Your task to perform on an android device: toggle notification dots Image 0: 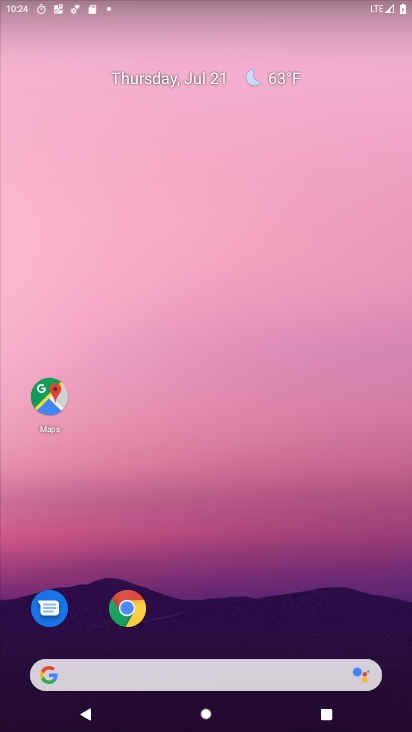
Step 0: drag from (203, 666) to (266, 80)
Your task to perform on an android device: toggle notification dots Image 1: 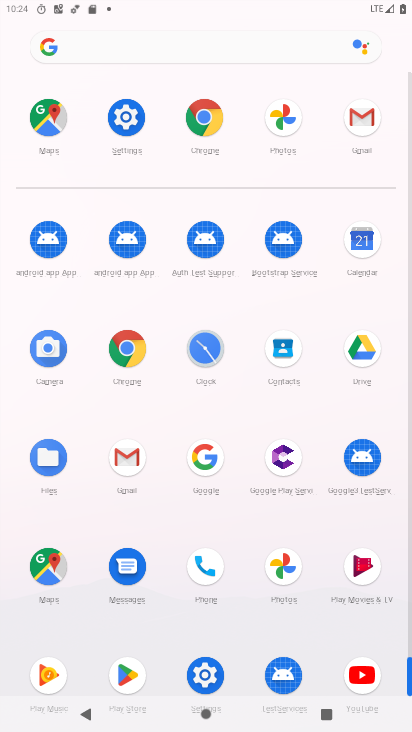
Step 1: click (130, 144)
Your task to perform on an android device: toggle notification dots Image 2: 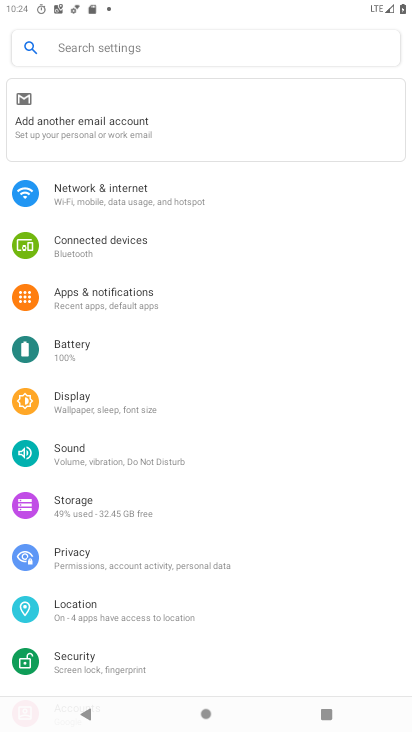
Step 2: click (85, 305)
Your task to perform on an android device: toggle notification dots Image 3: 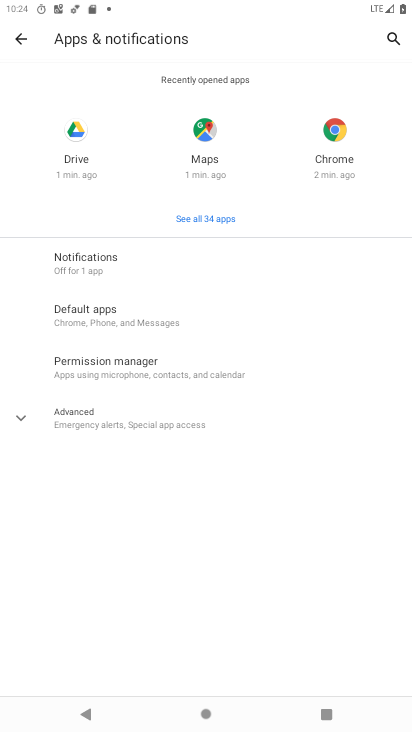
Step 3: click (148, 271)
Your task to perform on an android device: toggle notification dots Image 4: 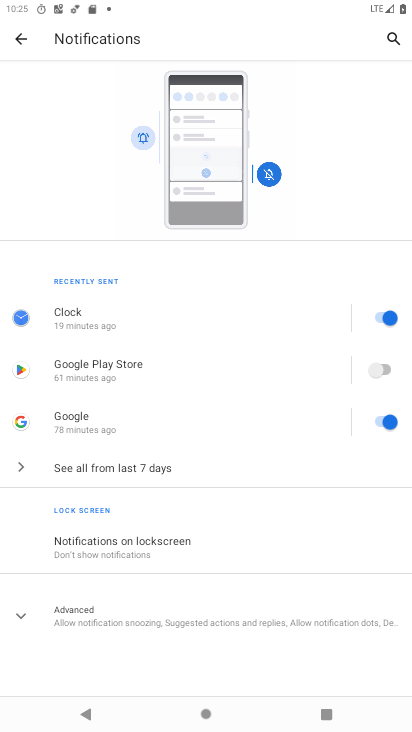
Step 4: drag from (206, 549) to (312, 166)
Your task to perform on an android device: toggle notification dots Image 5: 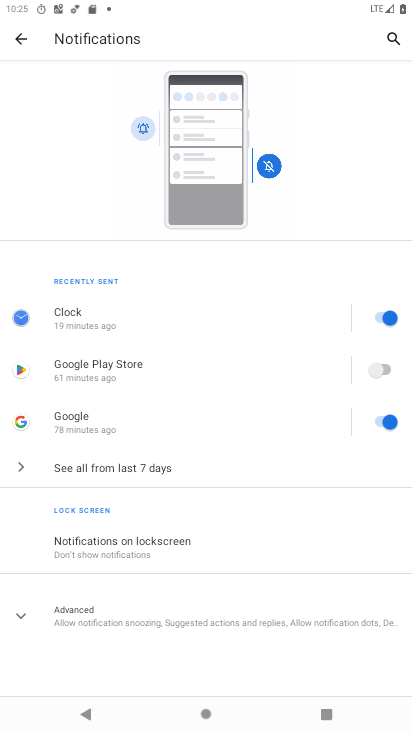
Step 5: click (133, 611)
Your task to perform on an android device: toggle notification dots Image 6: 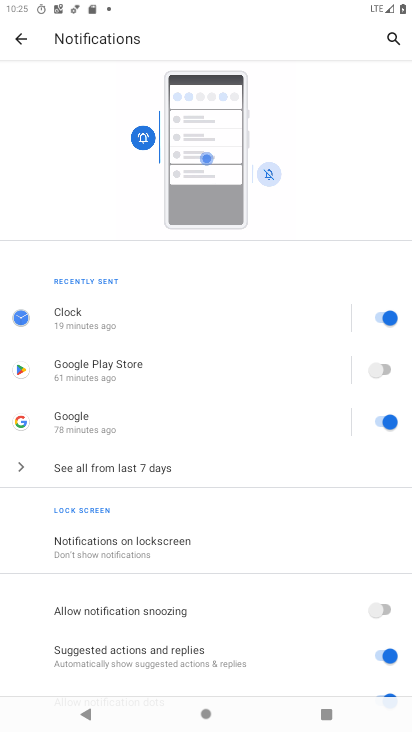
Step 6: drag from (222, 331) to (270, 45)
Your task to perform on an android device: toggle notification dots Image 7: 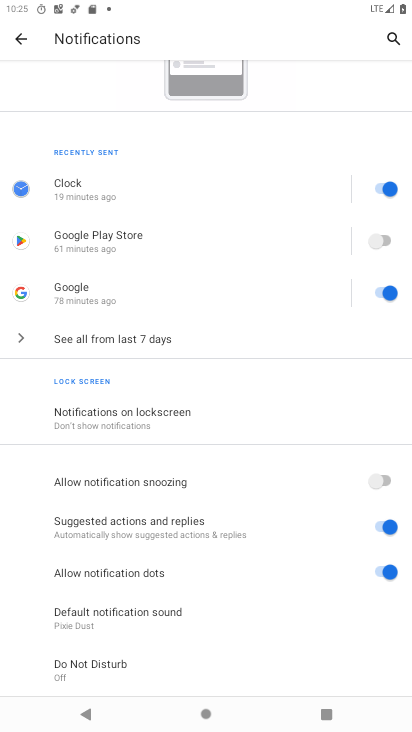
Step 7: drag from (216, 578) to (222, 142)
Your task to perform on an android device: toggle notification dots Image 8: 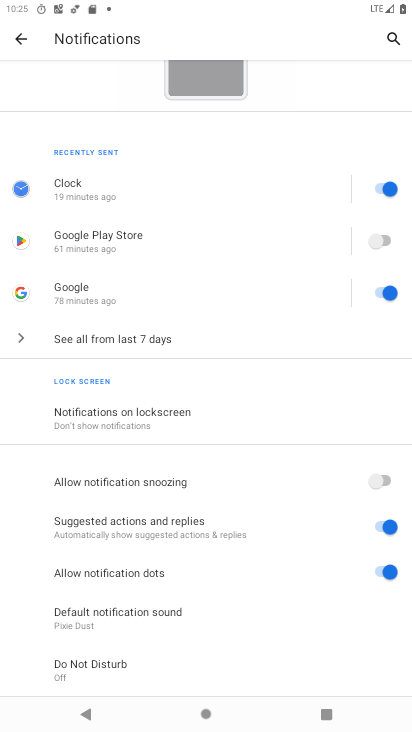
Step 8: drag from (113, 583) to (133, 294)
Your task to perform on an android device: toggle notification dots Image 9: 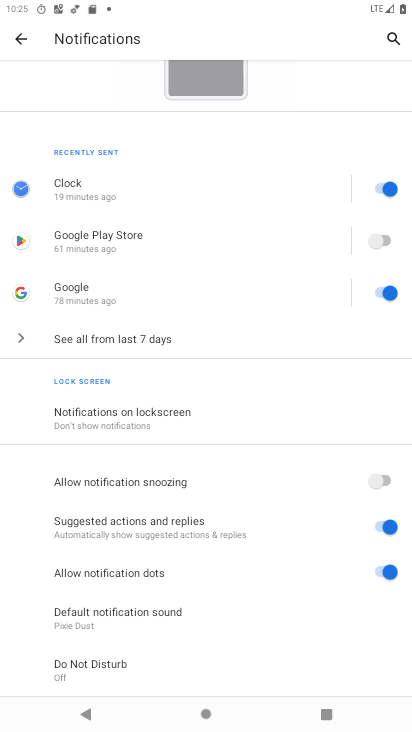
Step 9: click (370, 572)
Your task to perform on an android device: toggle notification dots Image 10: 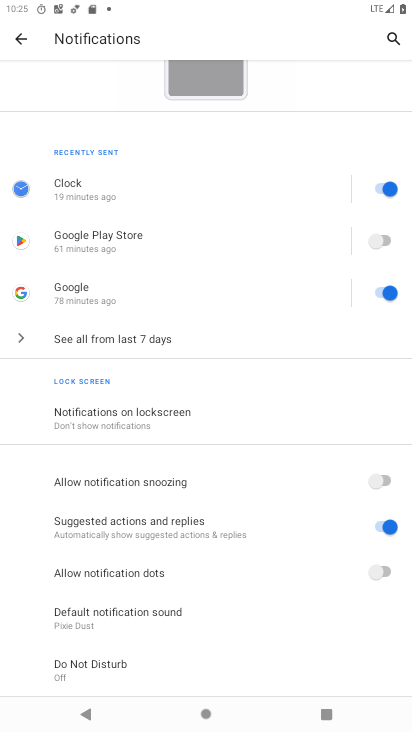
Step 10: task complete